Your task to perform on an android device: turn on airplane mode Image 0: 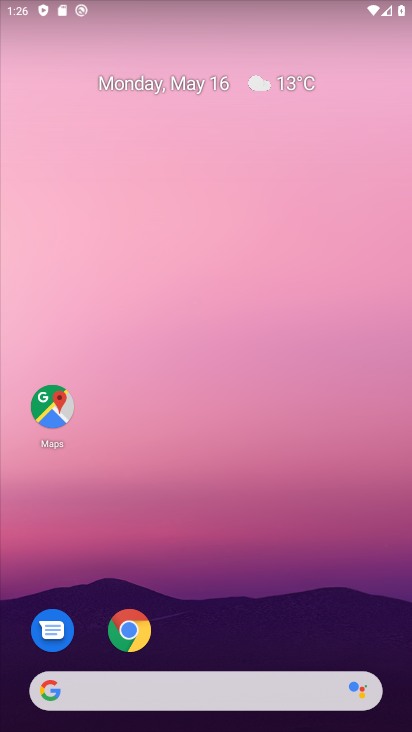
Step 0: drag from (241, 303) to (203, 53)
Your task to perform on an android device: turn on airplane mode Image 1: 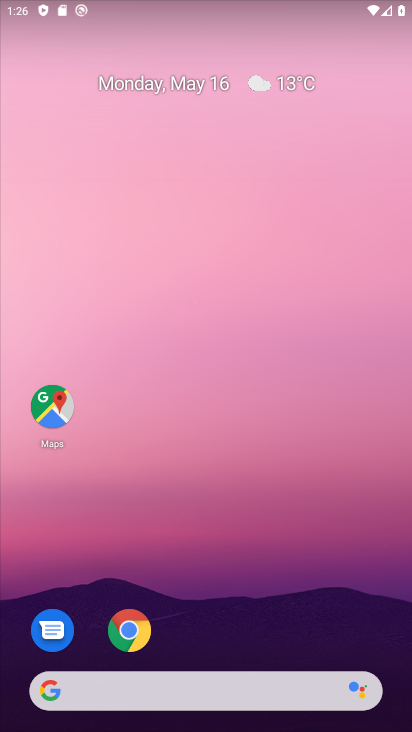
Step 1: drag from (256, 621) to (190, 41)
Your task to perform on an android device: turn on airplane mode Image 2: 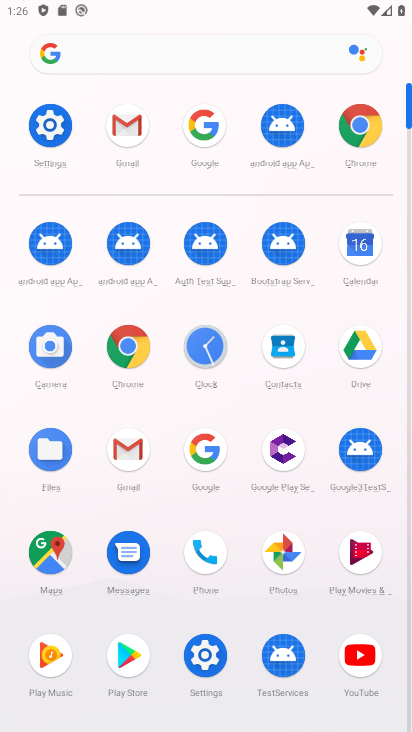
Step 2: click (40, 118)
Your task to perform on an android device: turn on airplane mode Image 3: 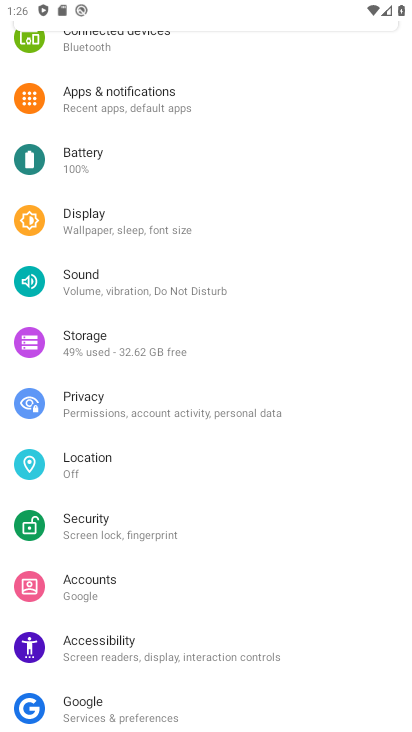
Step 3: drag from (156, 87) to (272, 451)
Your task to perform on an android device: turn on airplane mode Image 4: 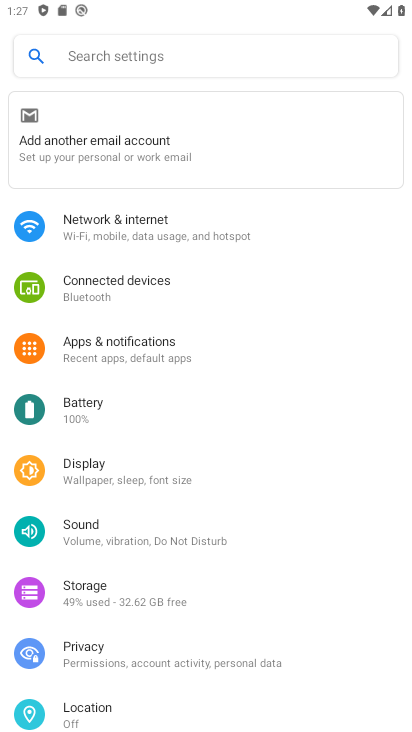
Step 4: click (227, 231)
Your task to perform on an android device: turn on airplane mode Image 5: 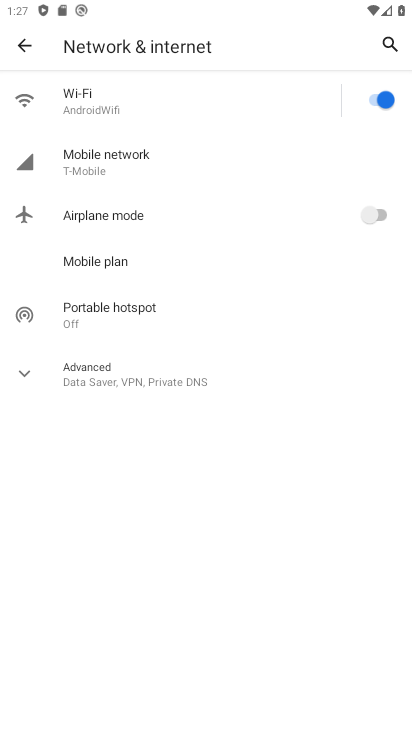
Step 5: click (364, 212)
Your task to perform on an android device: turn on airplane mode Image 6: 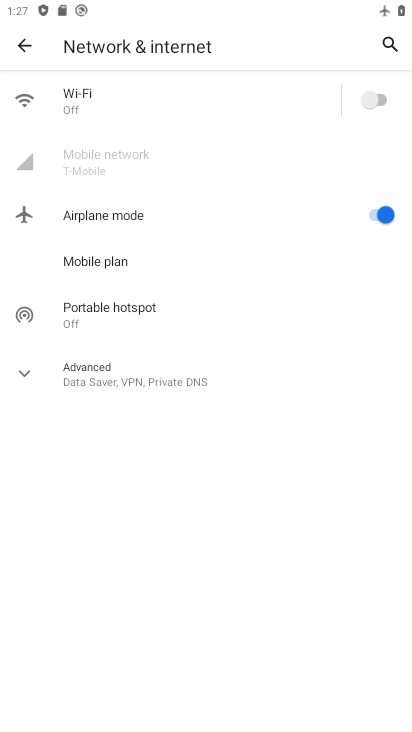
Step 6: task complete